Your task to perform on an android device: see sites visited before in the chrome app Image 0: 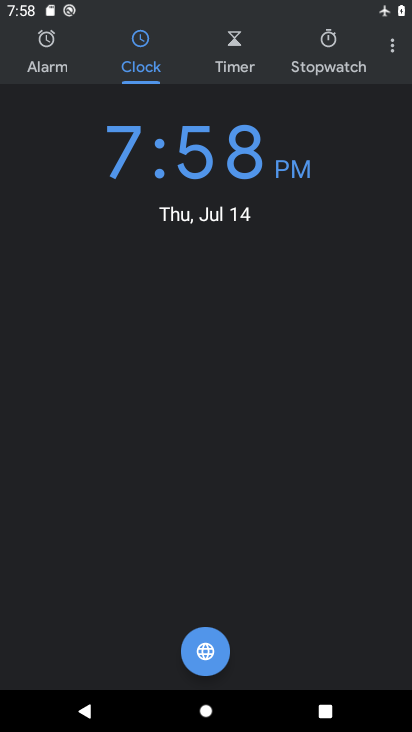
Step 0: press home button
Your task to perform on an android device: see sites visited before in the chrome app Image 1: 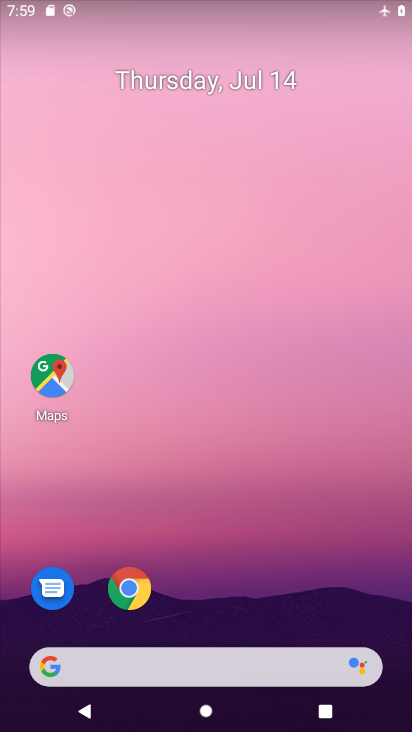
Step 1: click (134, 572)
Your task to perform on an android device: see sites visited before in the chrome app Image 2: 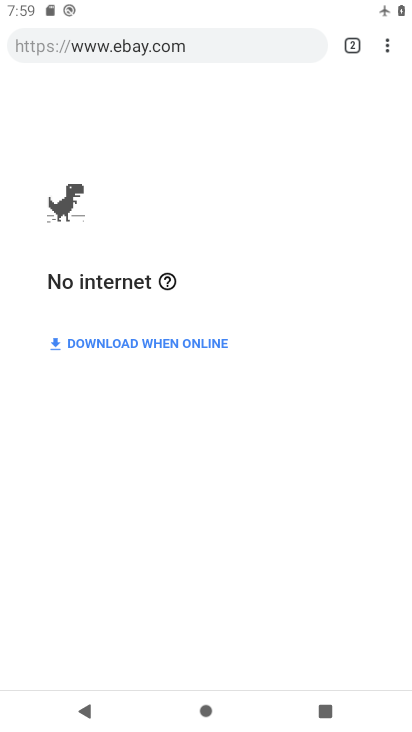
Step 2: click (391, 53)
Your task to perform on an android device: see sites visited before in the chrome app Image 3: 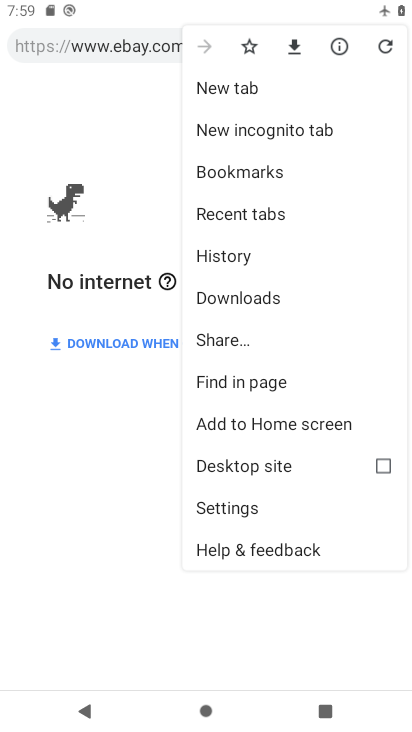
Step 3: click (232, 275)
Your task to perform on an android device: see sites visited before in the chrome app Image 4: 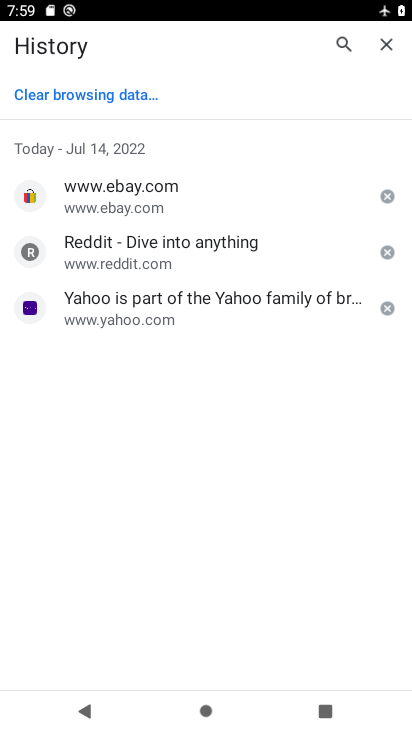
Step 4: task complete